Your task to perform on an android device: Search for seafood restaurants on Google Maps Image 0: 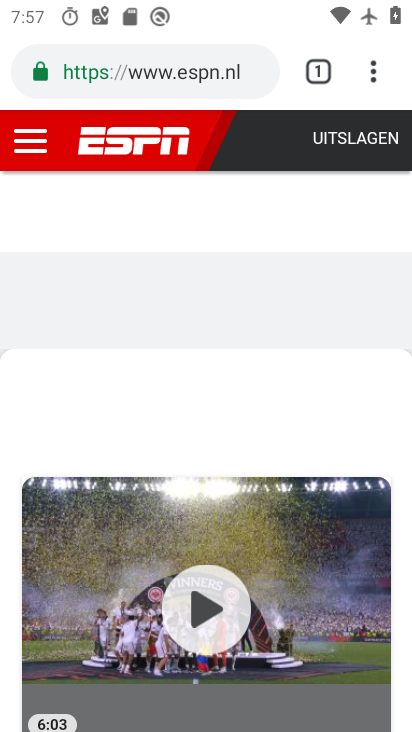
Step 0: press home button
Your task to perform on an android device: Search for seafood restaurants on Google Maps Image 1: 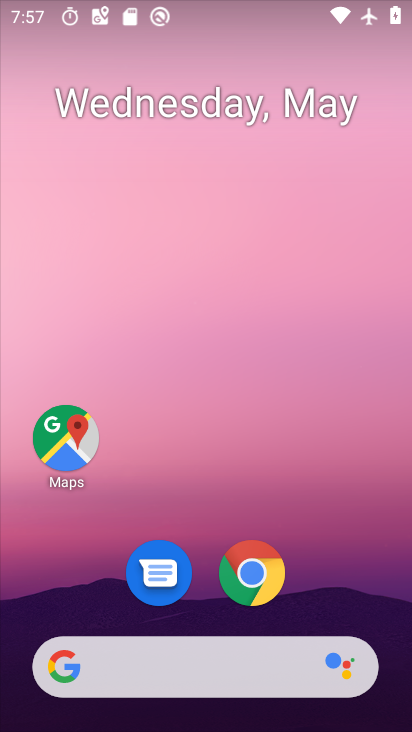
Step 1: click (56, 452)
Your task to perform on an android device: Search for seafood restaurants on Google Maps Image 2: 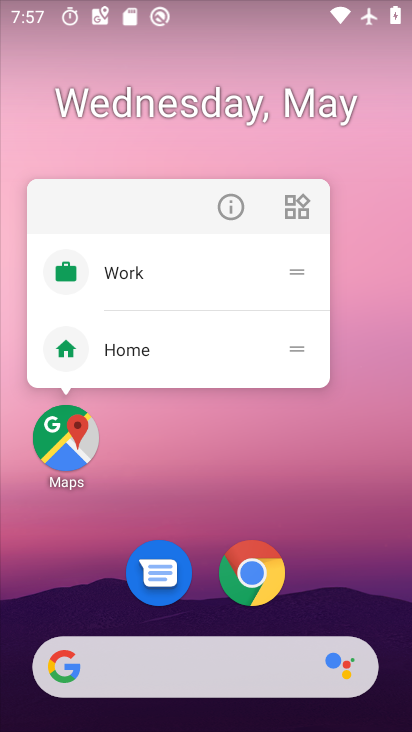
Step 2: click (58, 449)
Your task to perform on an android device: Search for seafood restaurants on Google Maps Image 3: 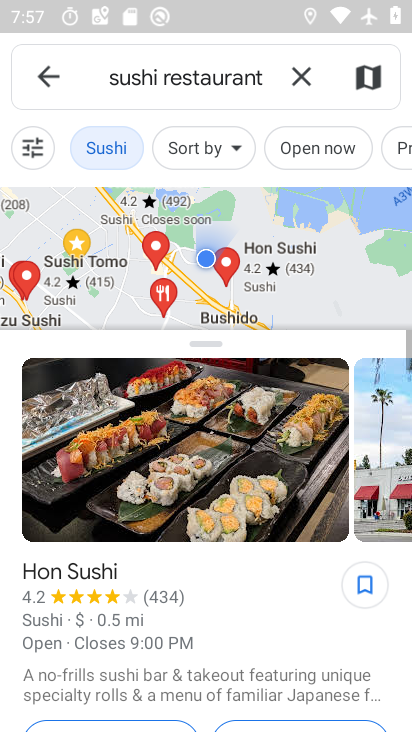
Step 3: click (307, 77)
Your task to perform on an android device: Search for seafood restaurants on Google Maps Image 4: 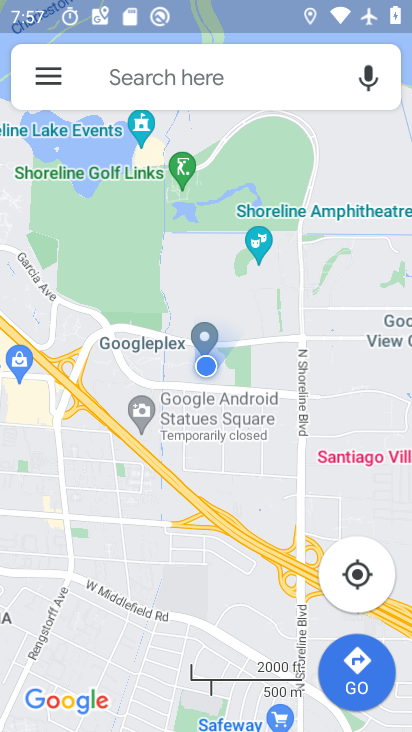
Step 4: click (143, 81)
Your task to perform on an android device: Search for seafood restaurants on Google Maps Image 5: 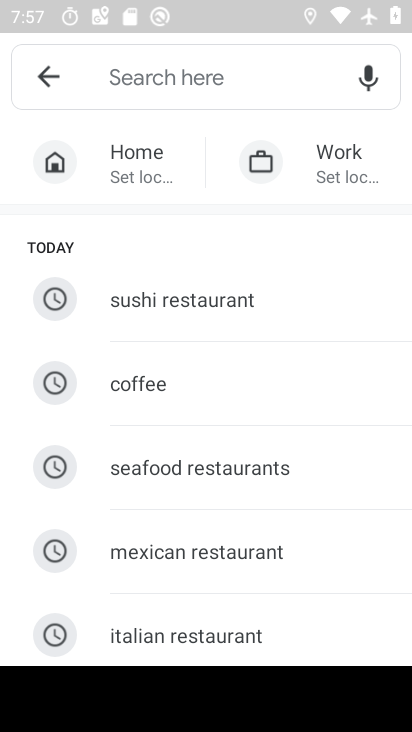
Step 5: type "seafood restaurant"
Your task to perform on an android device: Search for seafood restaurants on Google Maps Image 6: 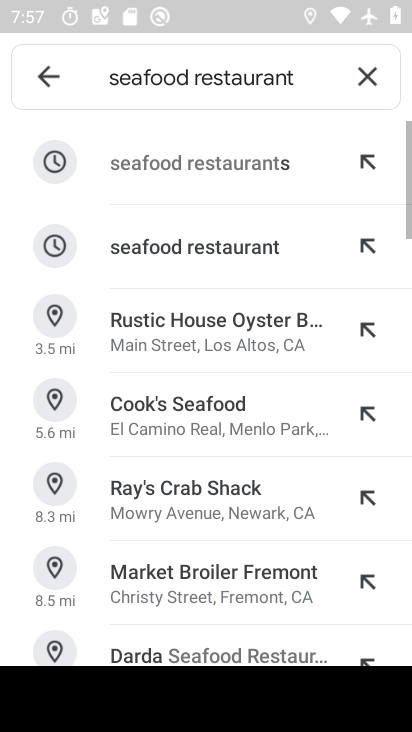
Step 6: click (247, 194)
Your task to perform on an android device: Search for seafood restaurants on Google Maps Image 7: 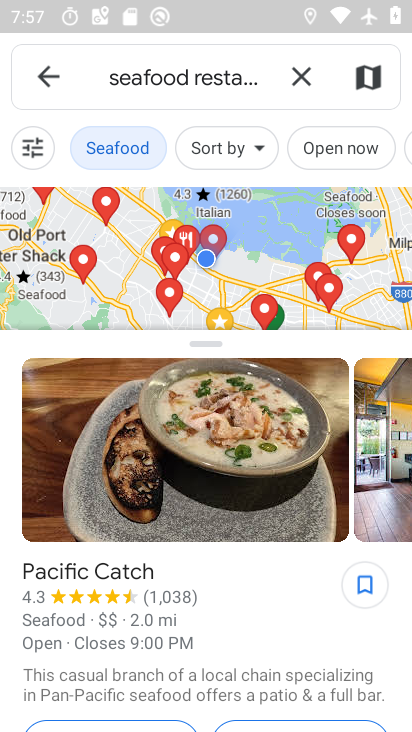
Step 7: task complete